Your task to perform on an android device: Open the calendar app, open the side menu, and click the "Day" option Image 0: 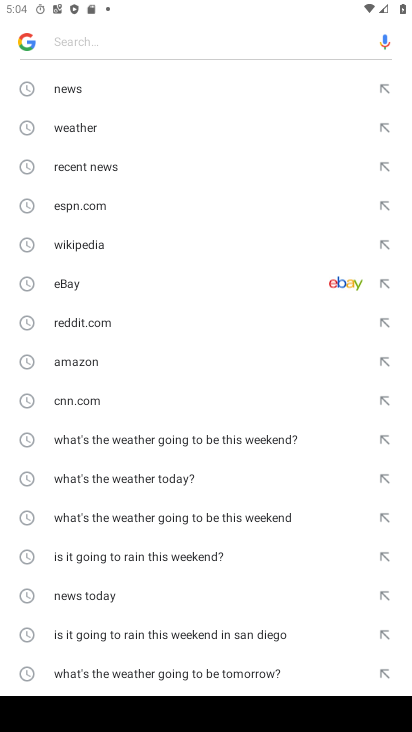
Step 0: press home button
Your task to perform on an android device: Open the calendar app, open the side menu, and click the "Day" option Image 1: 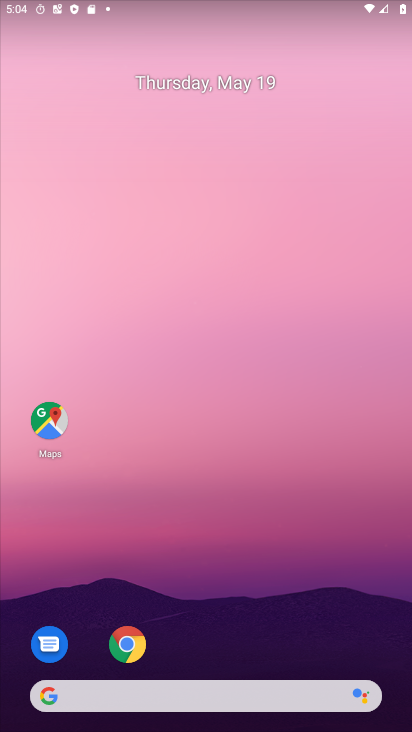
Step 1: drag from (92, 673) to (133, 210)
Your task to perform on an android device: Open the calendar app, open the side menu, and click the "Day" option Image 2: 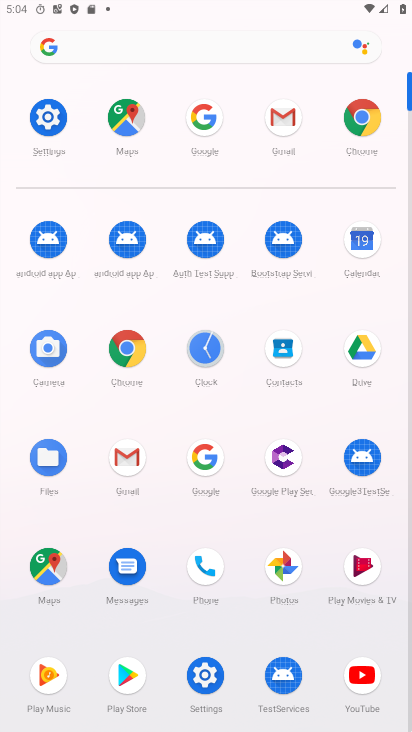
Step 2: click (358, 239)
Your task to perform on an android device: Open the calendar app, open the side menu, and click the "Day" option Image 3: 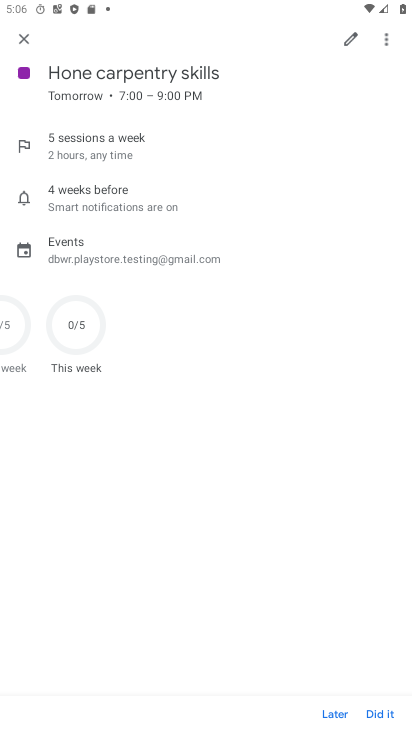
Step 3: click (21, 31)
Your task to perform on an android device: Open the calendar app, open the side menu, and click the "Day" option Image 4: 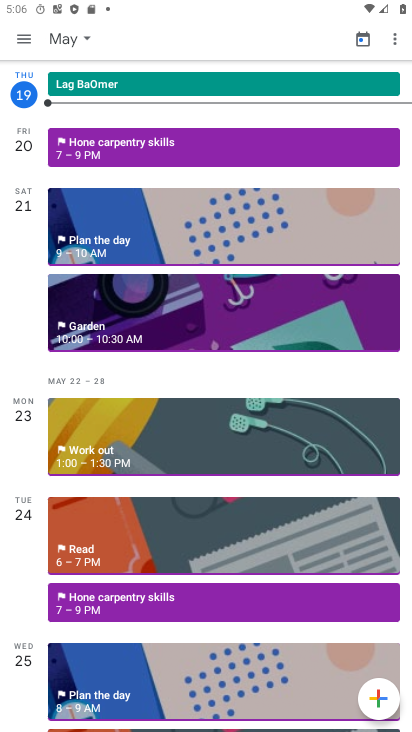
Step 4: click (29, 34)
Your task to perform on an android device: Open the calendar app, open the side menu, and click the "Day" option Image 5: 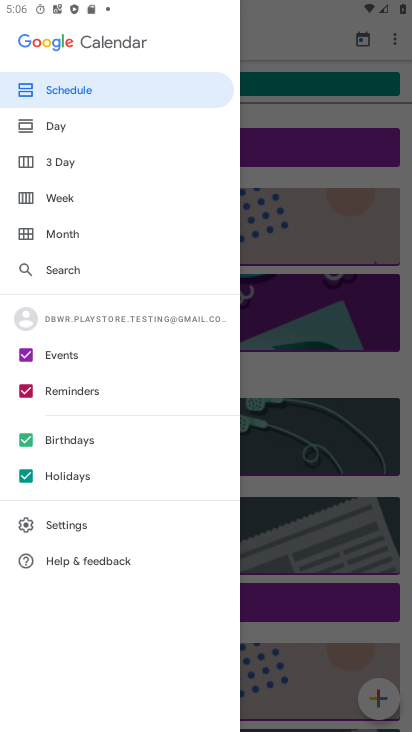
Step 5: click (50, 133)
Your task to perform on an android device: Open the calendar app, open the side menu, and click the "Day" option Image 6: 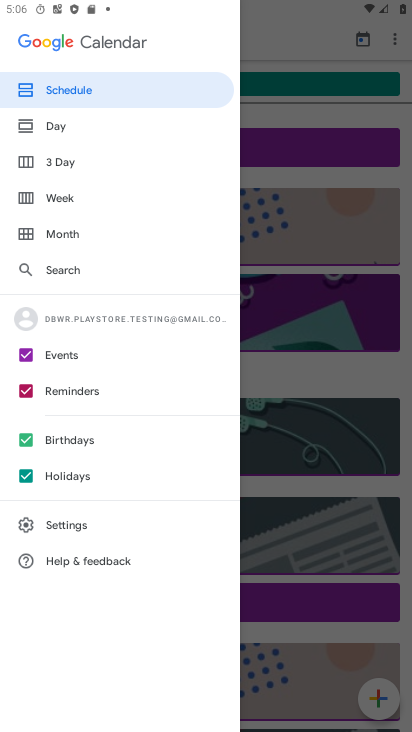
Step 6: click (47, 127)
Your task to perform on an android device: Open the calendar app, open the side menu, and click the "Day" option Image 7: 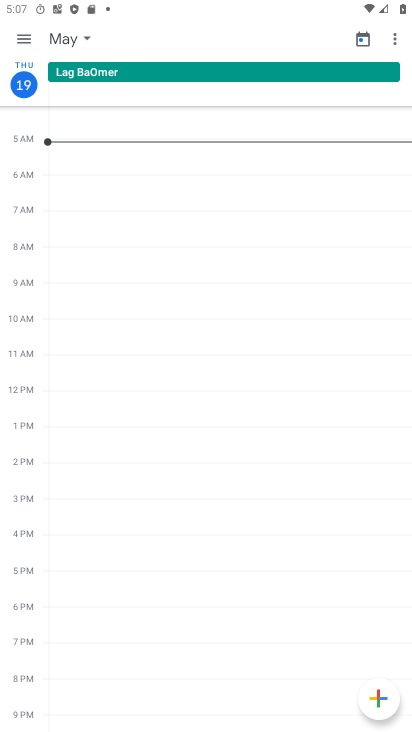
Step 7: task complete